Your task to perform on an android device: change notifications settings Image 0: 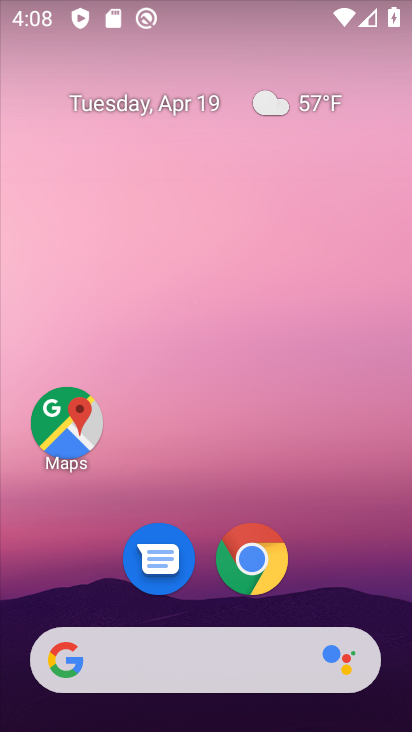
Step 0: drag from (181, 597) to (247, 105)
Your task to perform on an android device: change notifications settings Image 1: 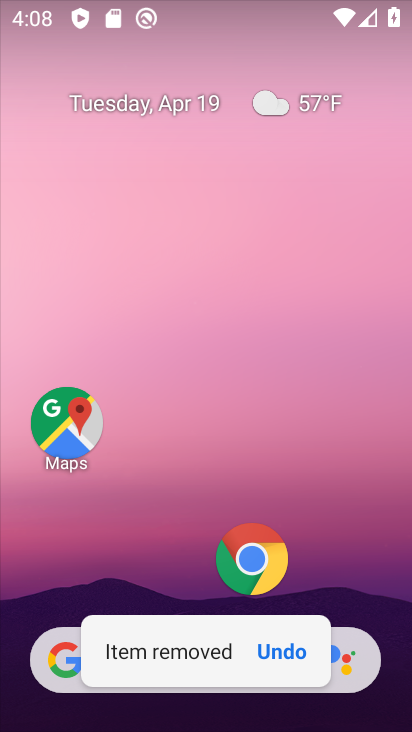
Step 1: drag from (234, 257) to (270, 70)
Your task to perform on an android device: change notifications settings Image 2: 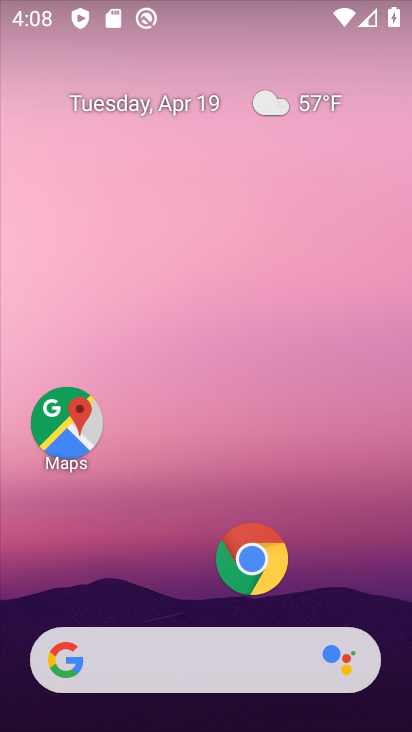
Step 2: drag from (326, 605) to (402, 57)
Your task to perform on an android device: change notifications settings Image 3: 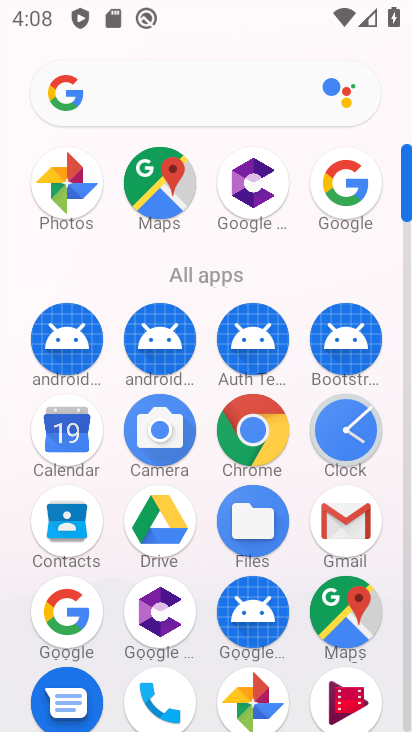
Step 3: drag from (172, 576) to (248, 323)
Your task to perform on an android device: change notifications settings Image 4: 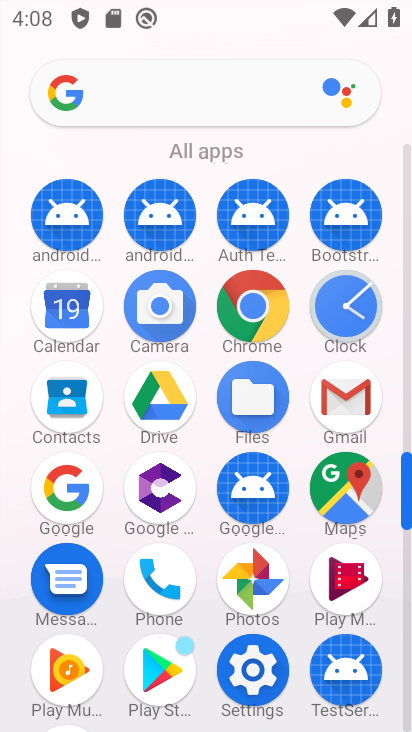
Step 4: click (250, 689)
Your task to perform on an android device: change notifications settings Image 5: 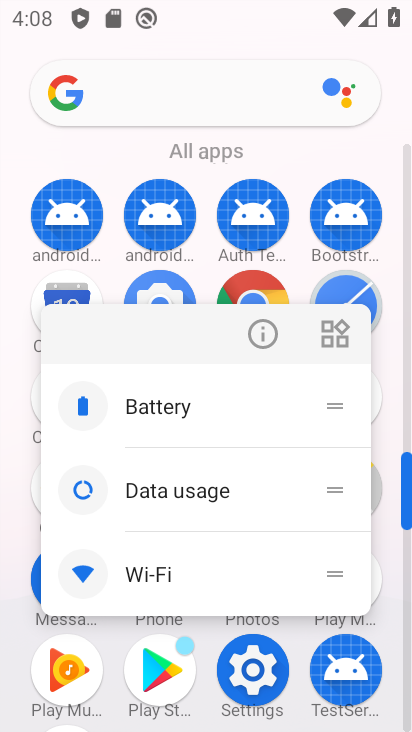
Step 5: click (244, 682)
Your task to perform on an android device: change notifications settings Image 6: 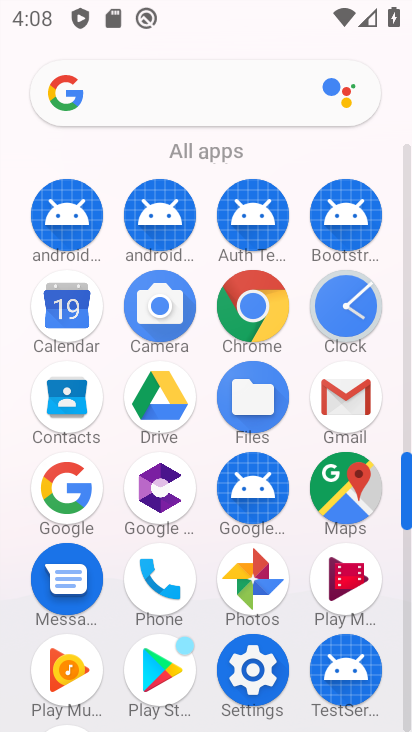
Step 6: click (255, 676)
Your task to perform on an android device: change notifications settings Image 7: 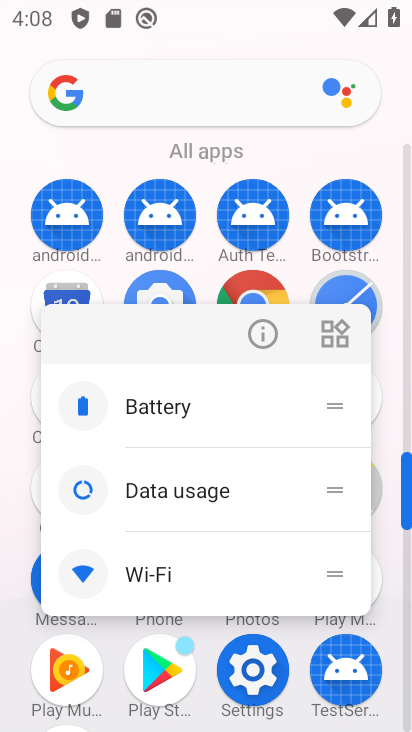
Step 7: click (231, 690)
Your task to perform on an android device: change notifications settings Image 8: 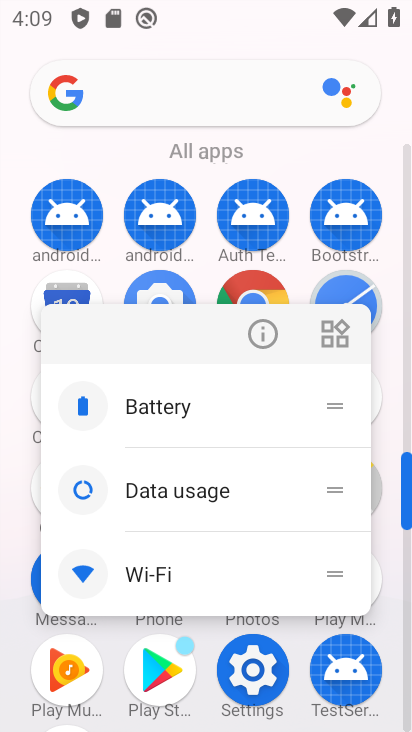
Step 8: click (251, 673)
Your task to perform on an android device: change notifications settings Image 9: 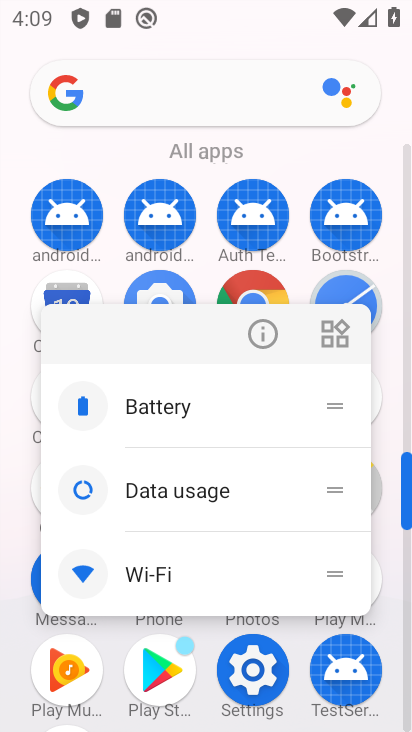
Step 9: click (251, 664)
Your task to perform on an android device: change notifications settings Image 10: 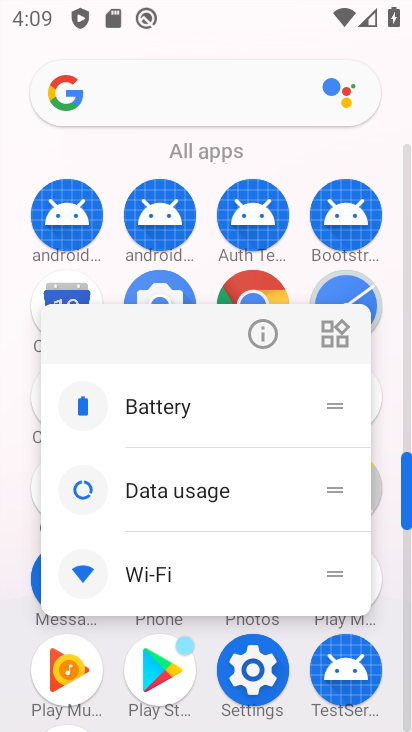
Step 10: click (251, 664)
Your task to perform on an android device: change notifications settings Image 11: 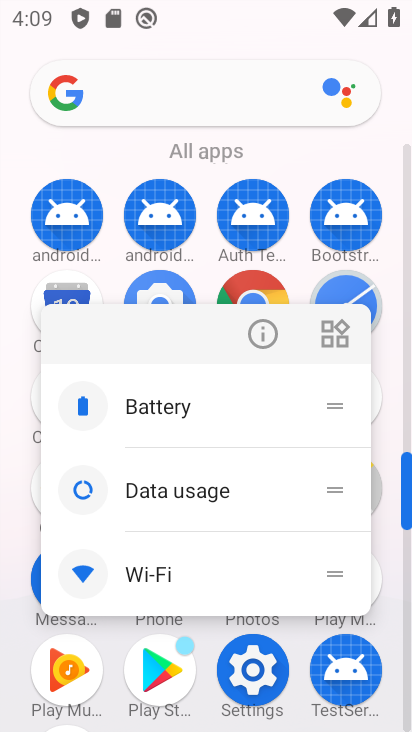
Step 11: click (258, 668)
Your task to perform on an android device: change notifications settings Image 12: 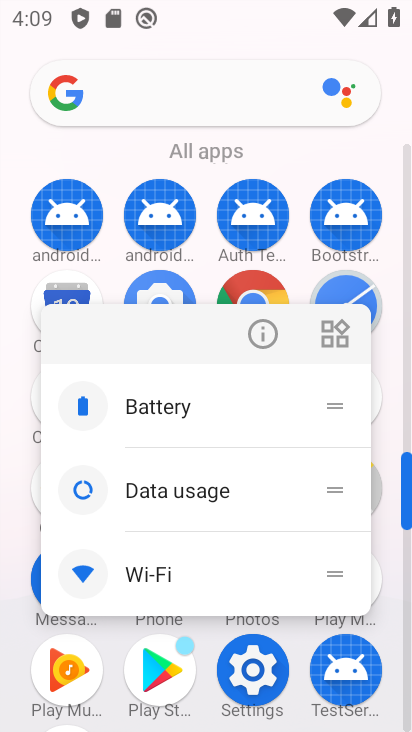
Step 12: click (258, 681)
Your task to perform on an android device: change notifications settings Image 13: 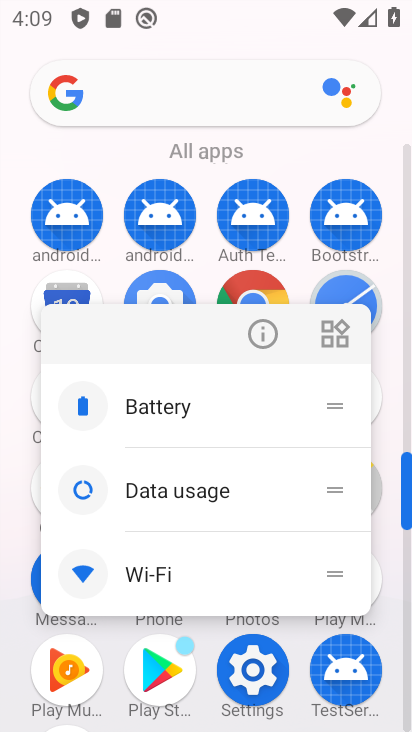
Step 13: click (258, 681)
Your task to perform on an android device: change notifications settings Image 14: 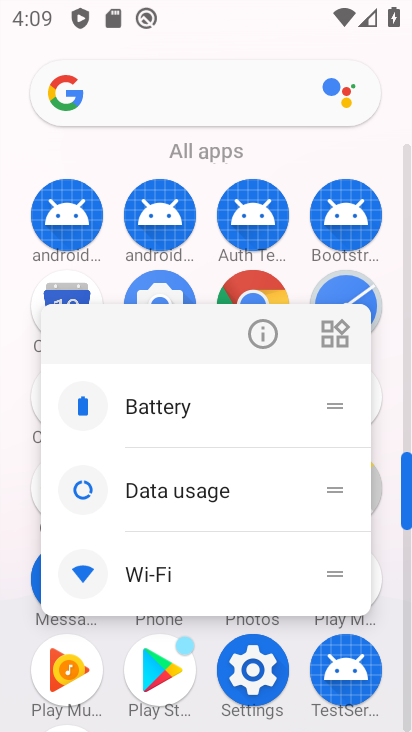
Step 14: click (258, 684)
Your task to perform on an android device: change notifications settings Image 15: 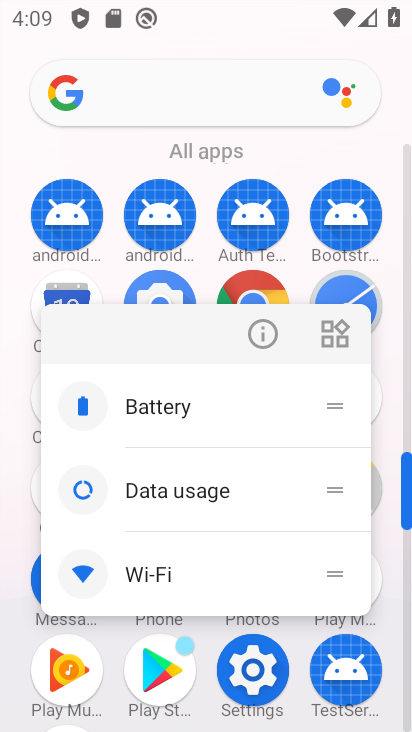
Step 15: click (258, 686)
Your task to perform on an android device: change notifications settings Image 16: 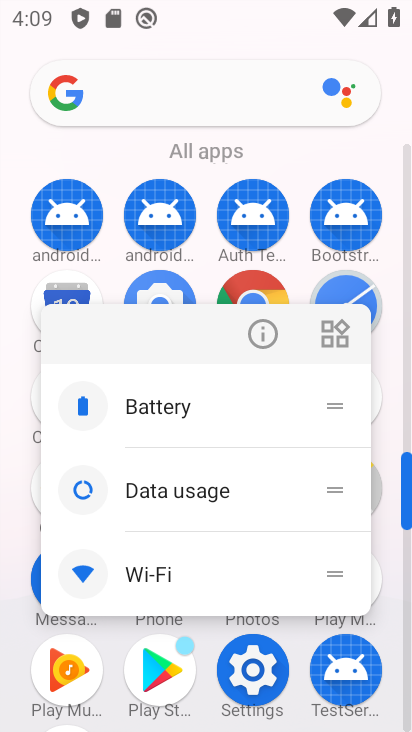
Step 16: click (258, 686)
Your task to perform on an android device: change notifications settings Image 17: 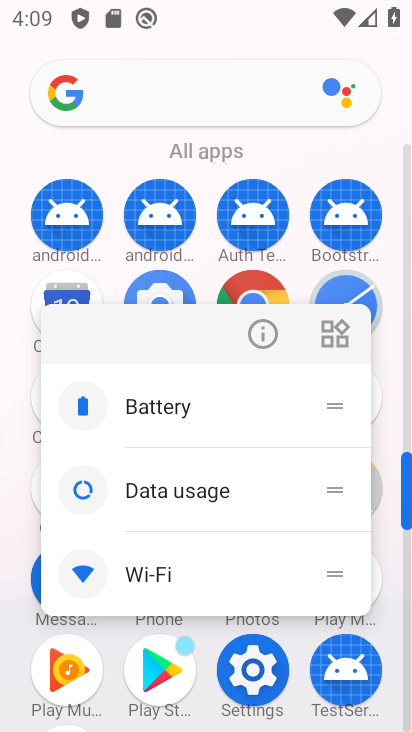
Step 17: click (258, 681)
Your task to perform on an android device: change notifications settings Image 18: 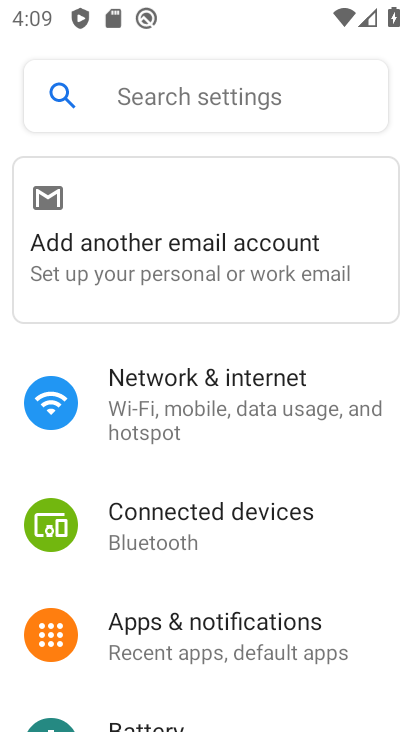
Step 18: click (248, 635)
Your task to perform on an android device: change notifications settings Image 19: 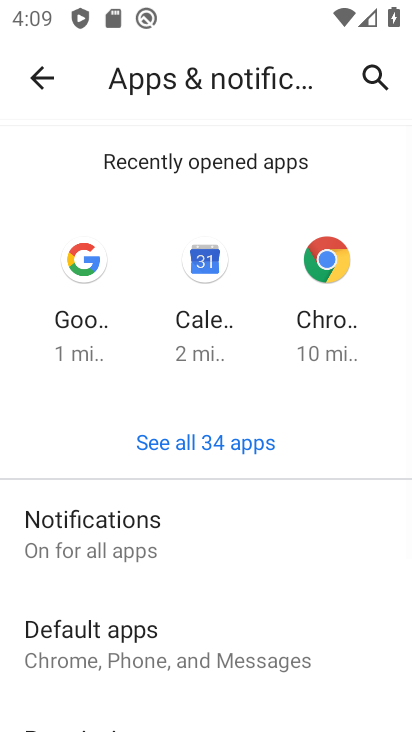
Step 19: click (178, 534)
Your task to perform on an android device: change notifications settings Image 20: 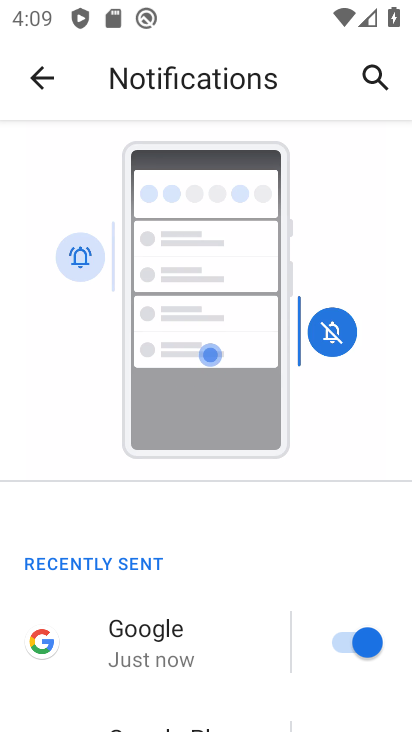
Step 20: drag from (191, 617) to (328, 95)
Your task to perform on an android device: change notifications settings Image 21: 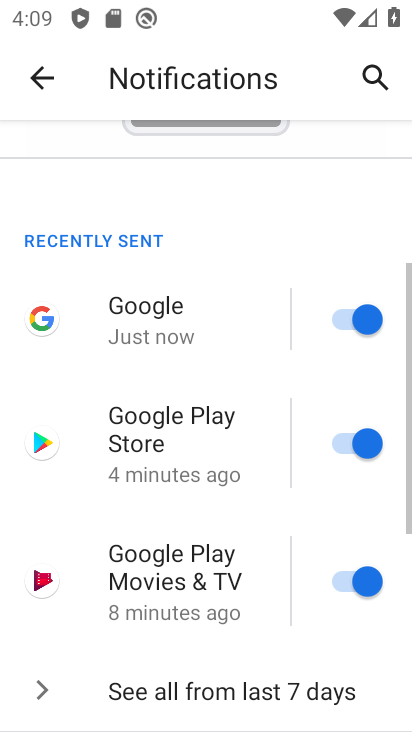
Step 21: drag from (243, 642) to (376, 155)
Your task to perform on an android device: change notifications settings Image 22: 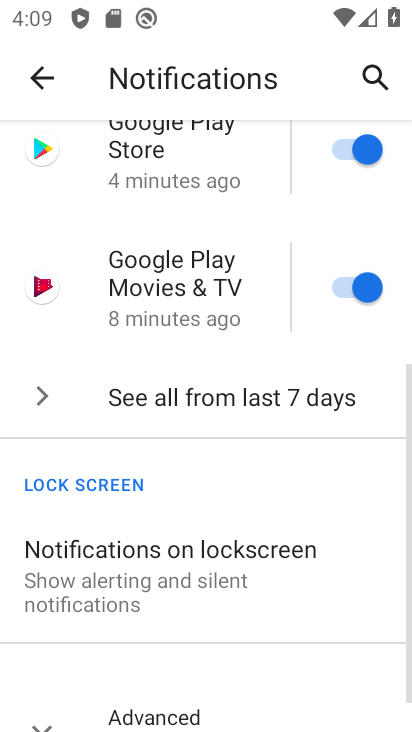
Step 22: drag from (240, 524) to (292, 330)
Your task to perform on an android device: change notifications settings Image 23: 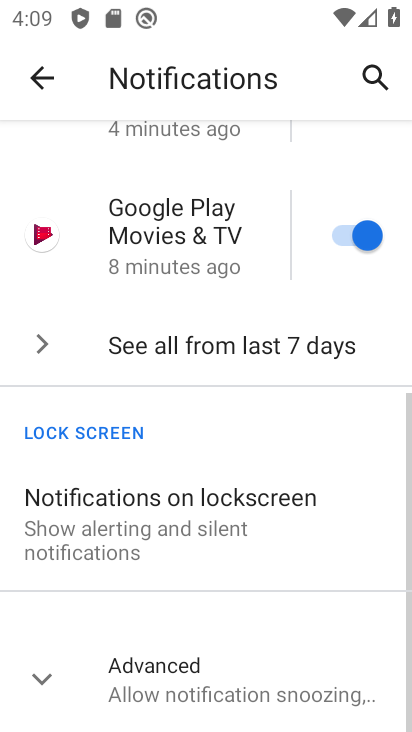
Step 23: click (192, 667)
Your task to perform on an android device: change notifications settings Image 24: 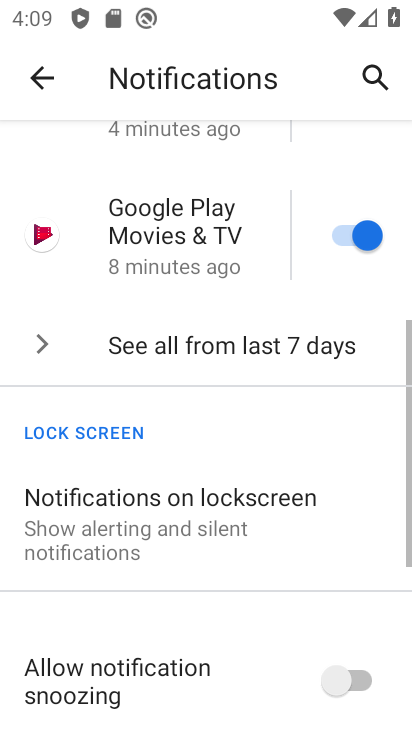
Step 24: drag from (196, 654) to (337, 250)
Your task to perform on an android device: change notifications settings Image 25: 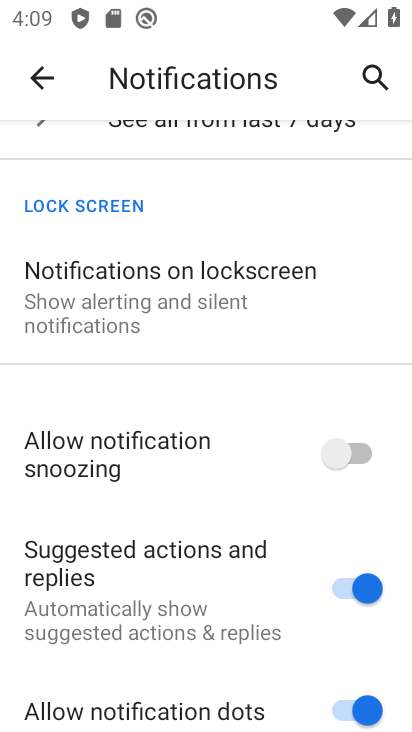
Step 25: click (348, 579)
Your task to perform on an android device: change notifications settings Image 26: 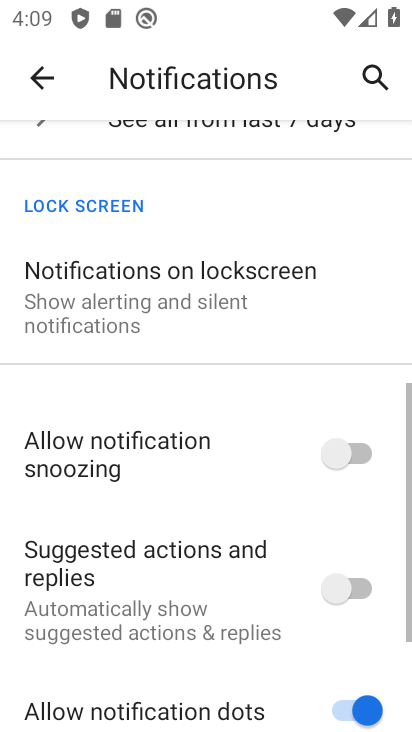
Step 26: click (370, 447)
Your task to perform on an android device: change notifications settings Image 27: 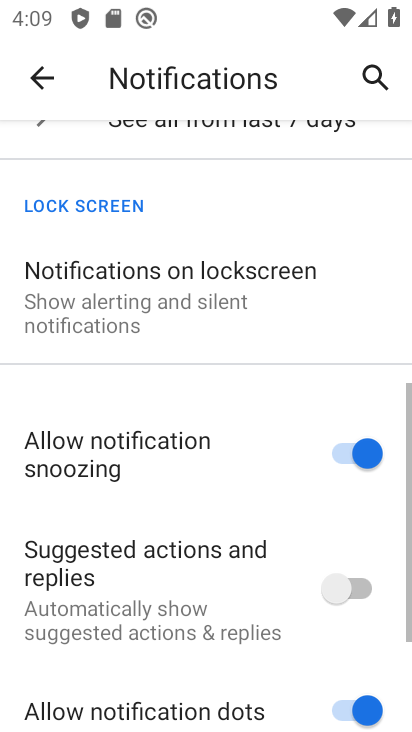
Step 27: click (351, 709)
Your task to perform on an android device: change notifications settings Image 28: 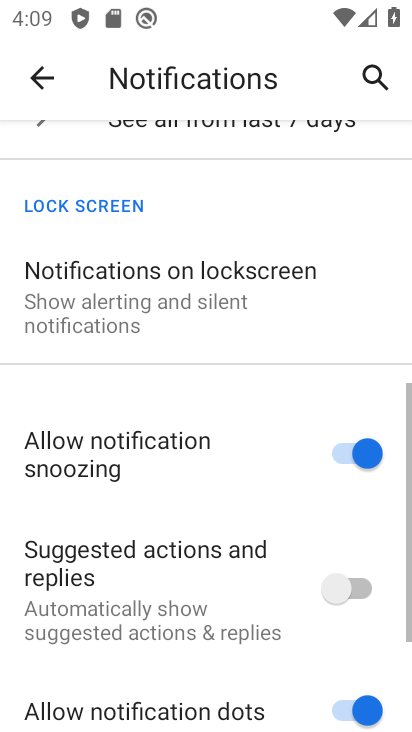
Step 28: drag from (225, 668) to (292, 314)
Your task to perform on an android device: change notifications settings Image 29: 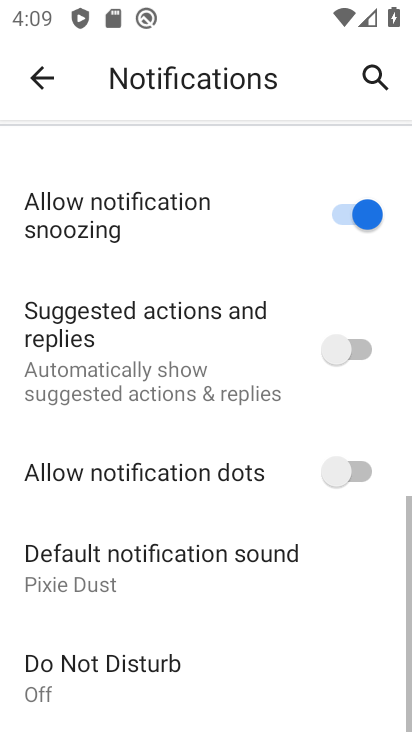
Step 29: click (206, 567)
Your task to perform on an android device: change notifications settings Image 30: 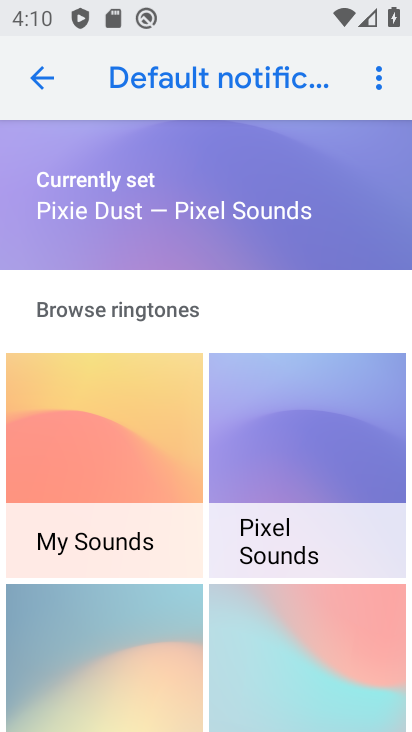
Step 30: click (302, 468)
Your task to perform on an android device: change notifications settings Image 31: 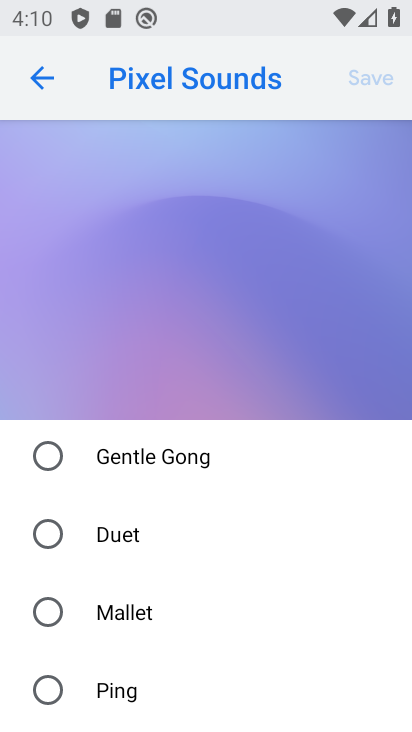
Step 31: click (206, 620)
Your task to perform on an android device: change notifications settings Image 32: 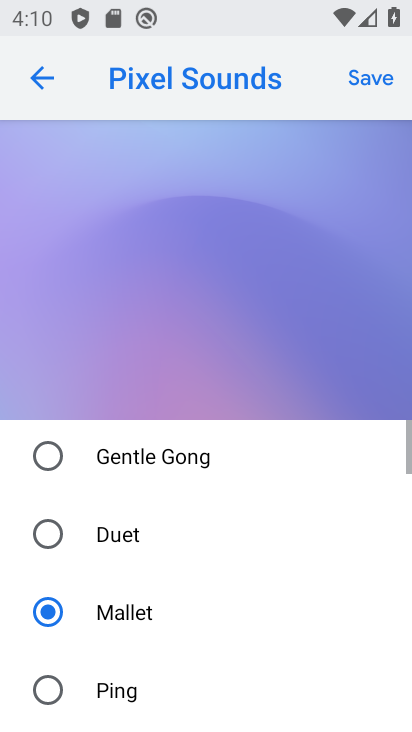
Step 32: click (370, 97)
Your task to perform on an android device: change notifications settings Image 33: 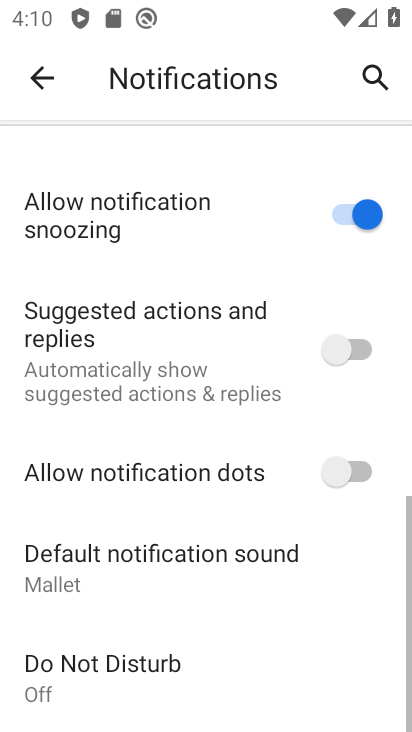
Step 33: drag from (229, 327) to (162, 622)
Your task to perform on an android device: change notifications settings Image 34: 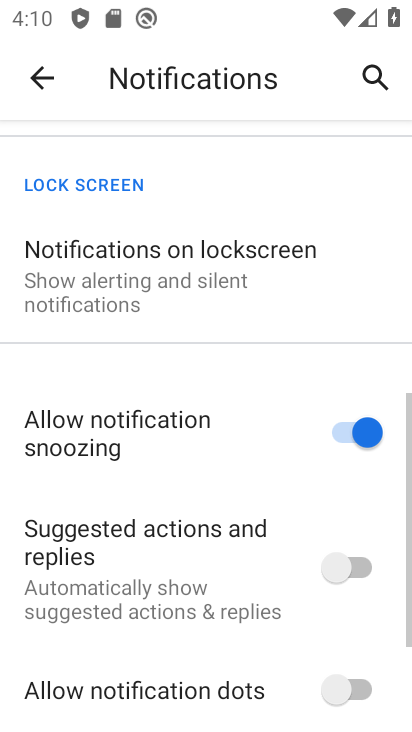
Step 34: click (211, 311)
Your task to perform on an android device: change notifications settings Image 35: 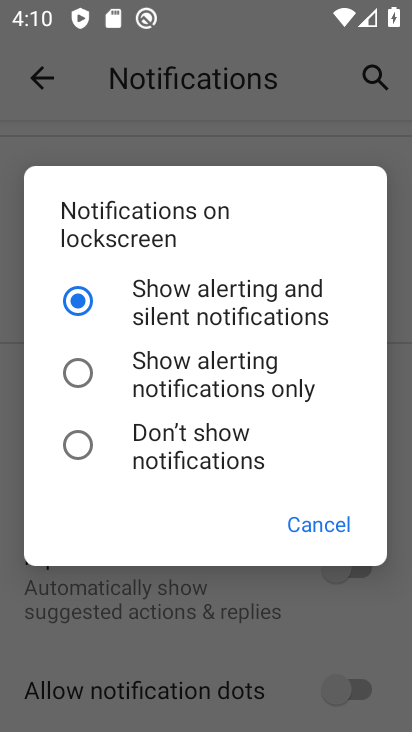
Step 35: click (204, 360)
Your task to perform on an android device: change notifications settings Image 36: 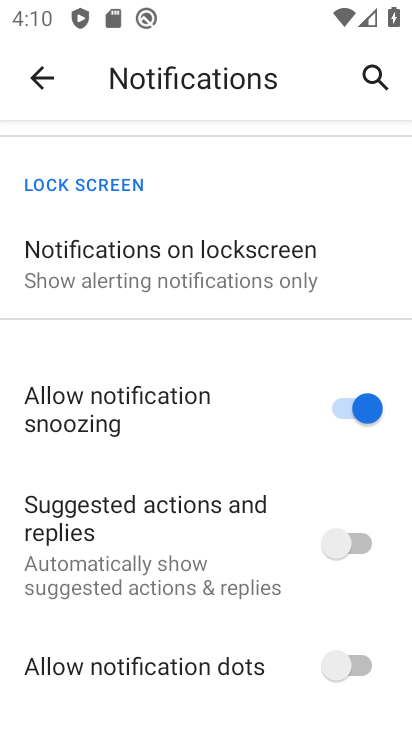
Step 36: task complete